Your task to perform on an android device: move a message to another label in the gmail app Image 0: 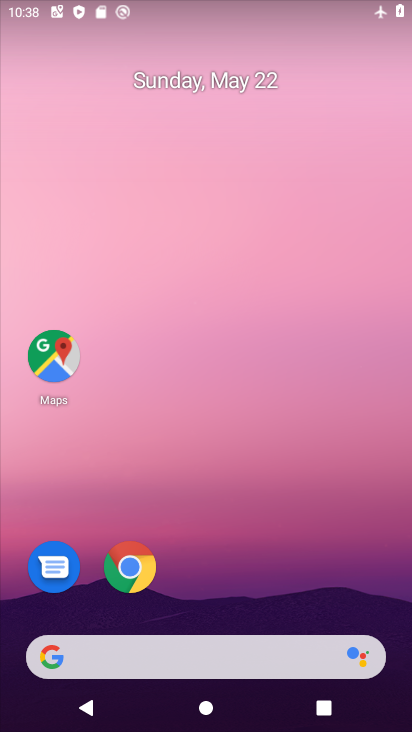
Step 0: press home button
Your task to perform on an android device: move a message to another label in the gmail app Image 1: 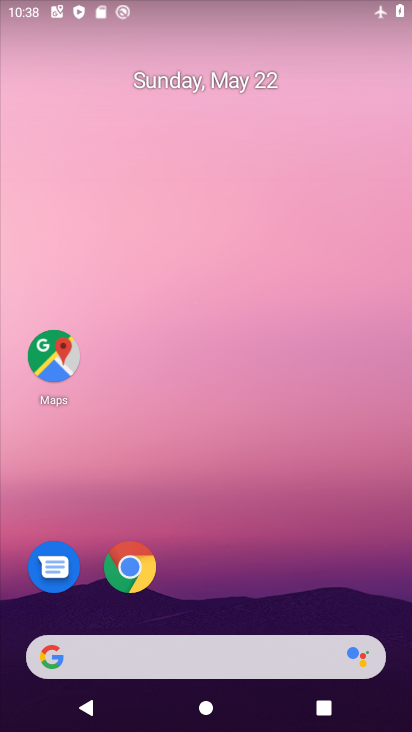
Step 1: drag from (377, 597) to (337, 94)
Your task to perform on an android device: move a message to another label in the gmail app Image 2: 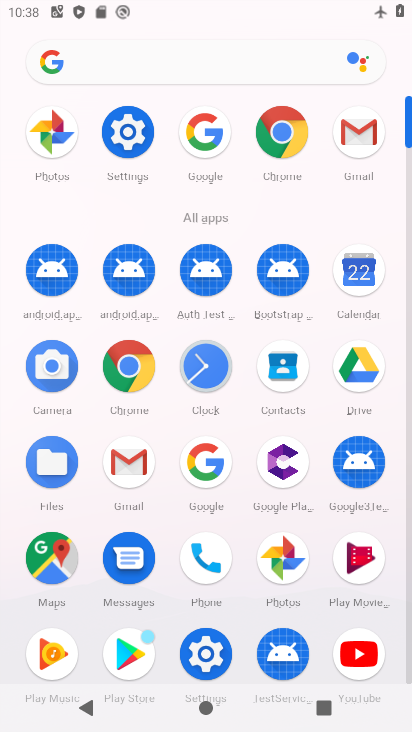
Step 2: click (123, 481)
Your task to perform on an android device: move a message to another label in the gmail app Image 3: 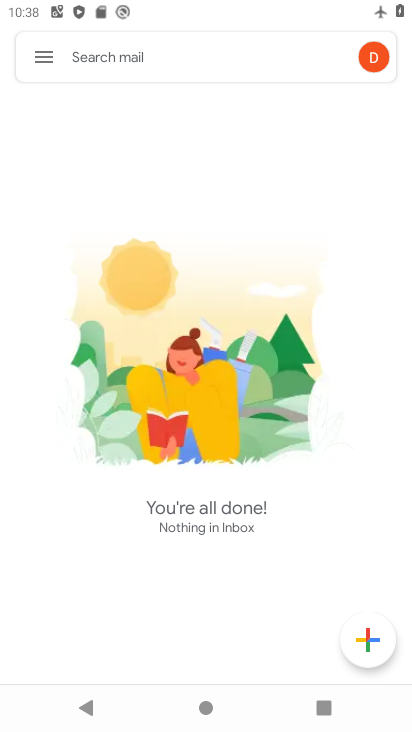
Step 3: click (49, 69)
Your task to perform on an android device: move a message to another label in the gmail app Image 4: 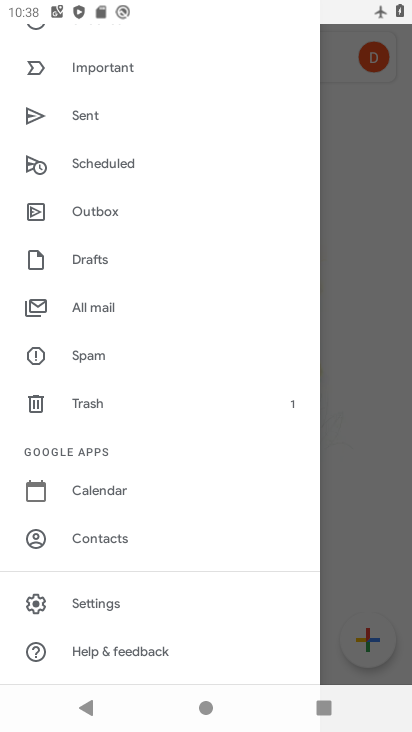
Step 4: click (117, 300)
Your task to perform on an android device: move a message to another label in the gmail app Image 5: 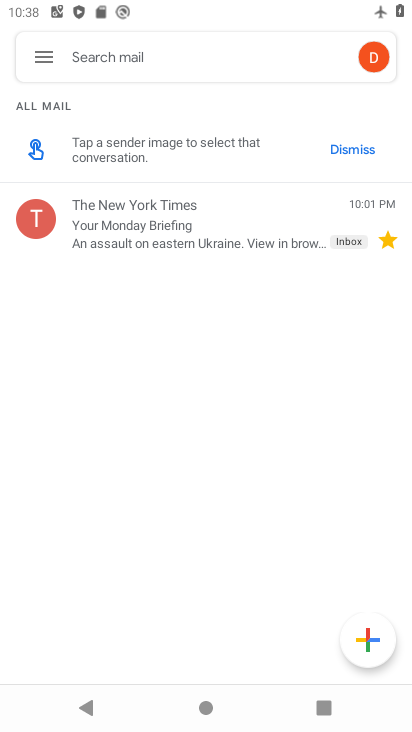
Step 5: click (332, 219)
Your task to perform on an android device: move a message to another label in the gmail app Image 6: 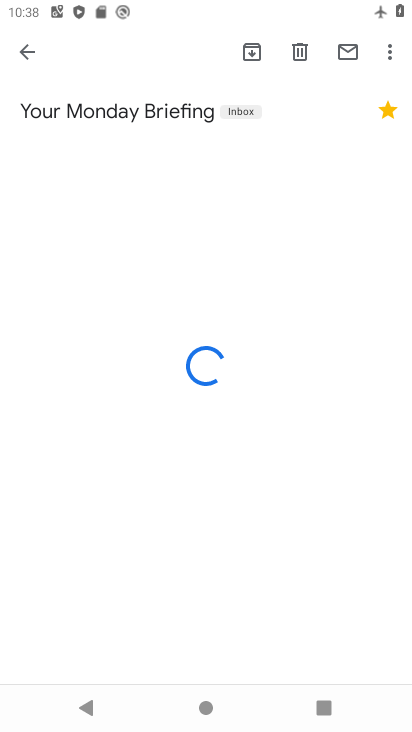
Step 6: click (393, 56)
Your task to perform on an android device: move a message to another label in the gmail app Image 7: 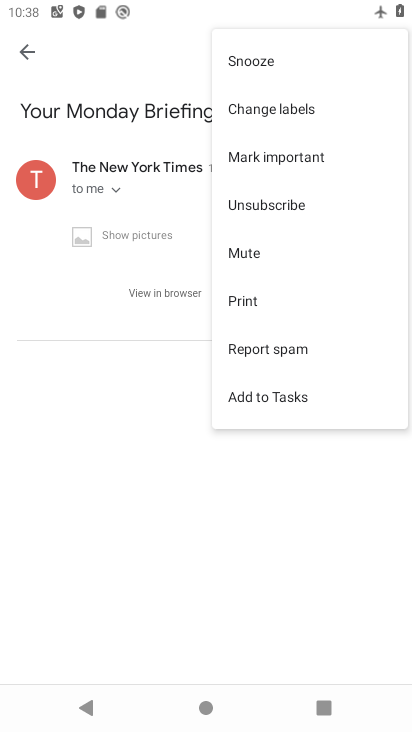
Step 7: click (270, 66)
Your task to perform on an android device: move a message to another label in the gmail app Image 8: 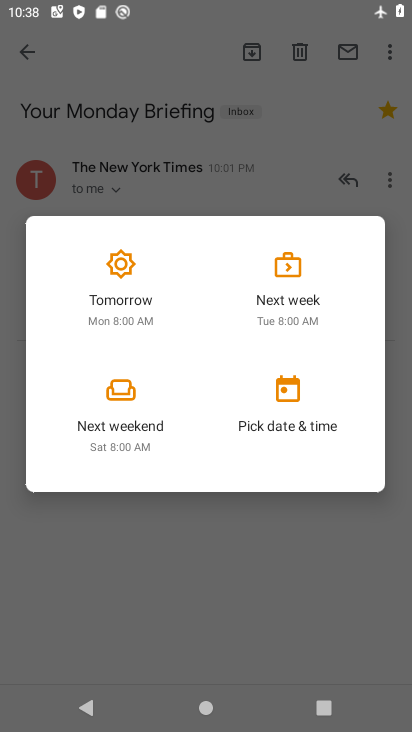
Step 8: click (145, 280)
Your task to perform on an android device: move a message to another label in the gmail app Image 9: 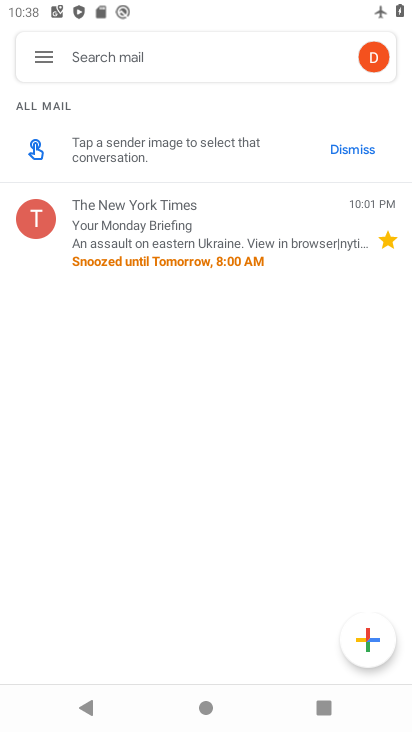
Step 9: task complete